Your task to perform on an android device: Go to eBay Image 0: 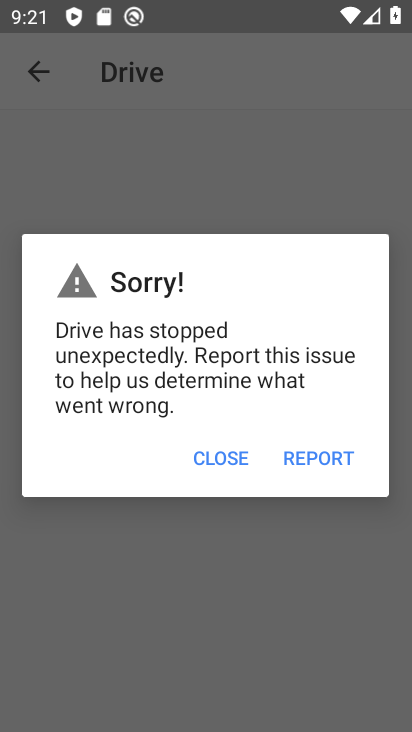
Step 0: press home button
Your task to perform on an android device: Go to eBay Image 1: 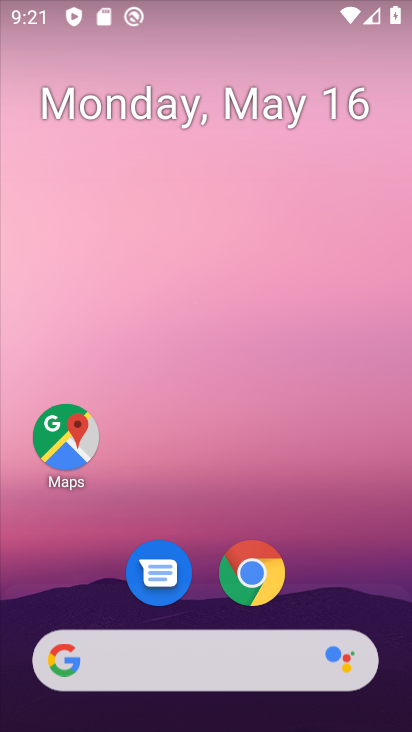
Step 1: click (253, 568)
Your task to perform on an android device: Go to eBay Image 2: 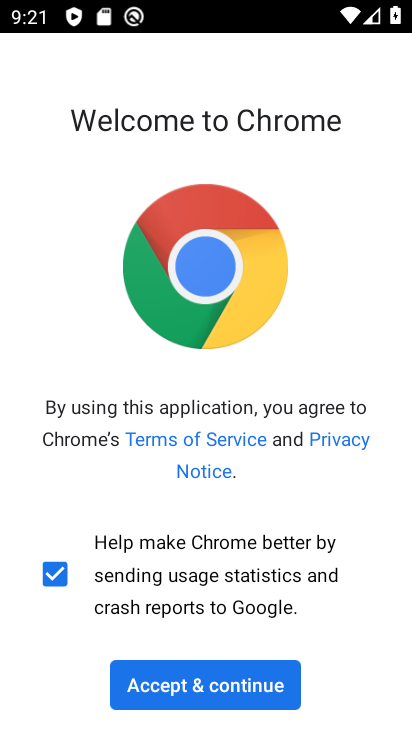
Step 2: click (161, 676)
Your task to perform on an android device: Go to eBay Image 3: 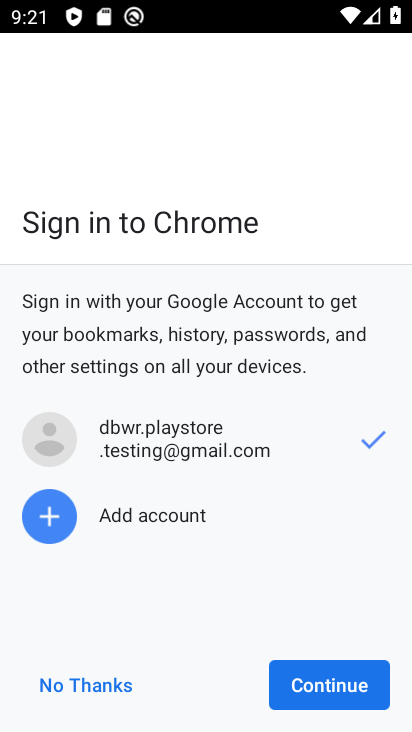
Step 3: click (341, 675)
Your task to perform on an android device: Go to eBay Image 4: 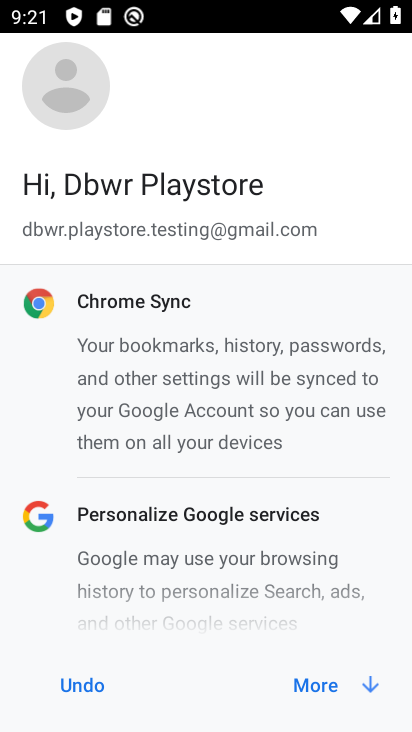
Step 4: click (341, 675)
Your task to perform on an android device: Go to eBay Image 5: 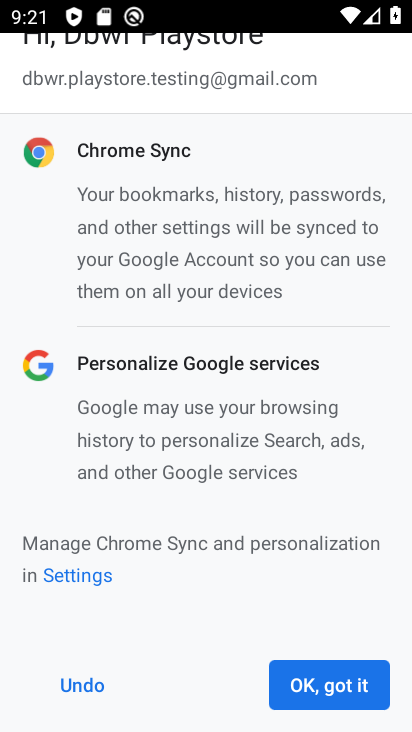
Step 5: click (341, 675)
Your task to perform on an android device: Go to eBay Image 6: 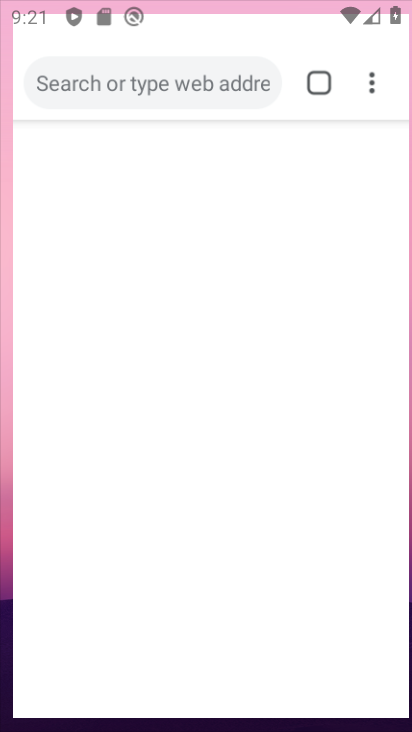
Step 6: click (341, 675)
Your task to perform on an android device: Go to eBay Image 7: 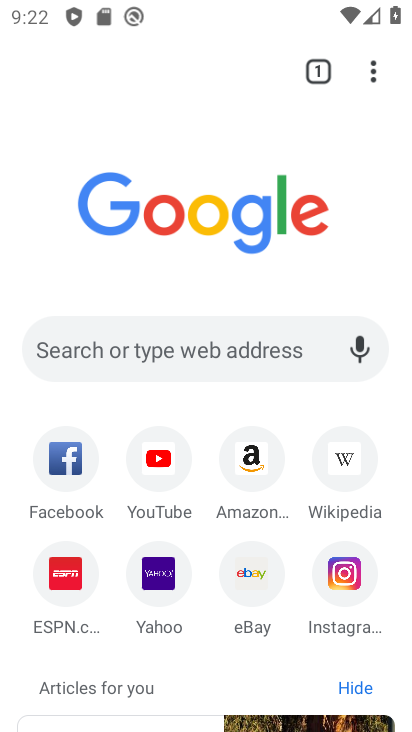
Step 7: click (239, 570)
Your task to perform on an android device: Go to eBay Image 8: 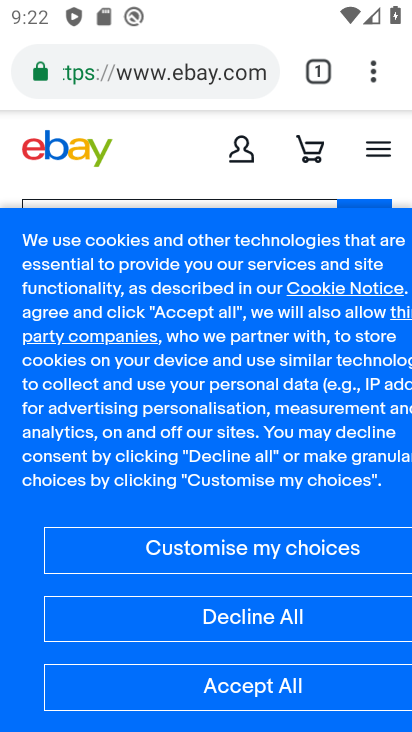
Step 8: task complete